Your task to perform on an android device: Go to display settings Image 0: 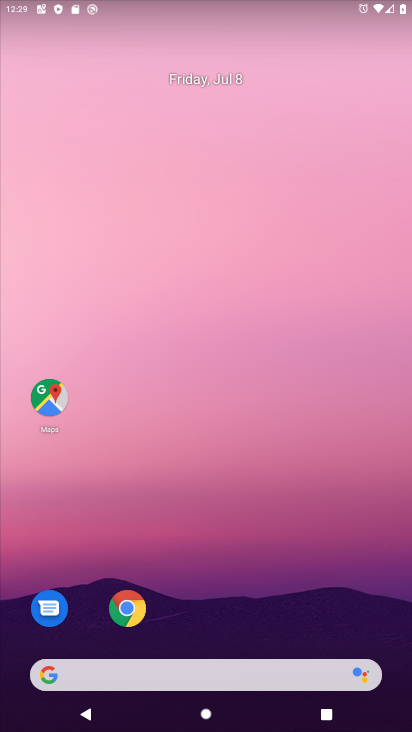
Step 0: drag from (21, 719) to (128, 170)
Your task to perform on an android device: Go to display settings Image 1: 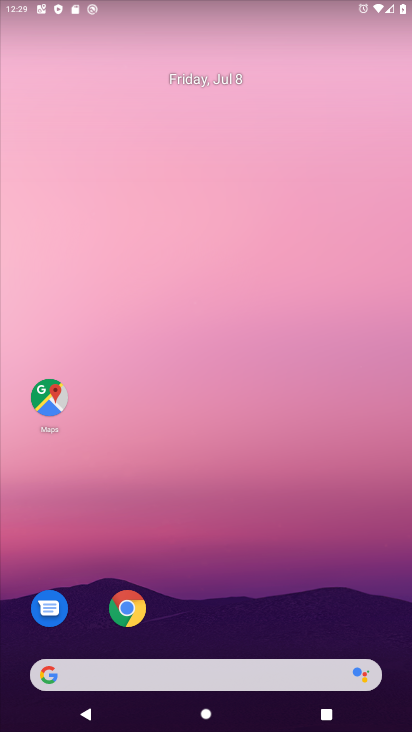
Step 1: drag from (42, 631) to (189, 10)
Your task to perform on an android device: Go to display settings Image 2: 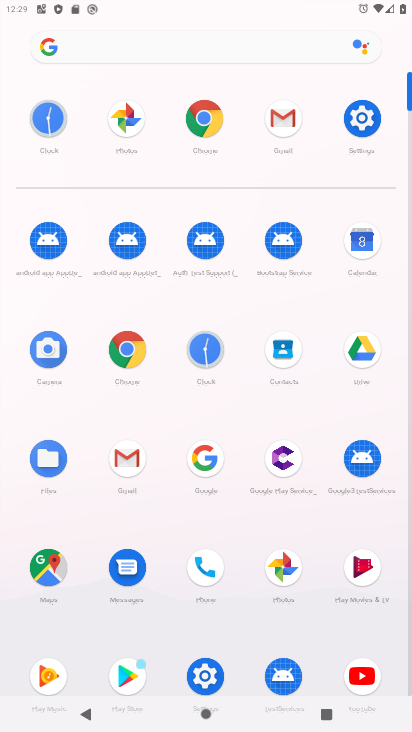
Step 2: click (195, 670)
Your task to perform on an android device: Go to display settings Image 3: 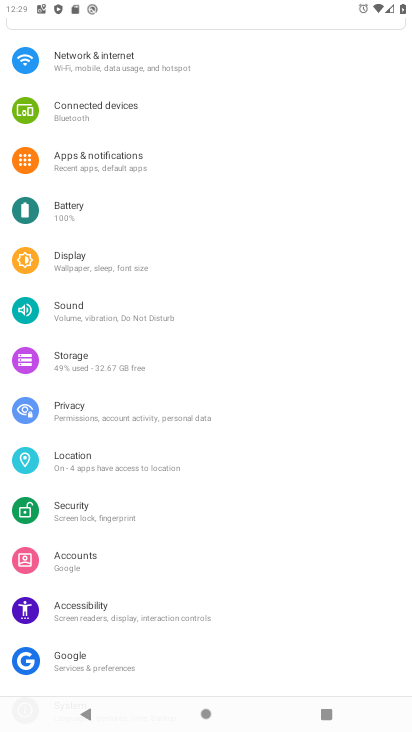
Step 3: click (117, 259)
Your task to perform on an android device: Go to display settings Image 4: 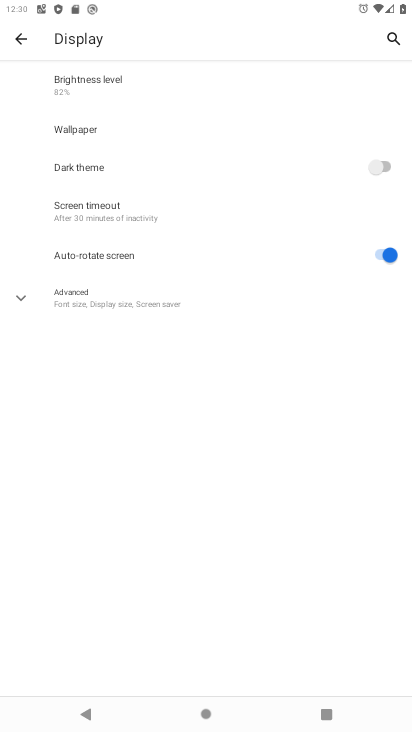
Step 4: task complete